Your task to perform on an android device: Open Chrome and go to settings Image 0: 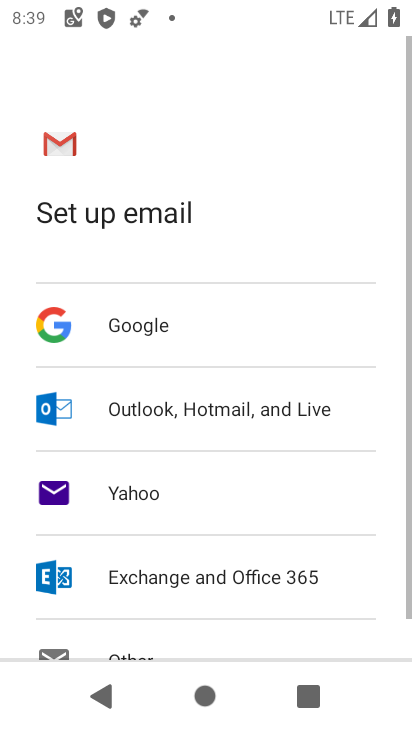
Step 0: press back button
Your task to perform on an android device: Open Chrome and go to settings Image 1: 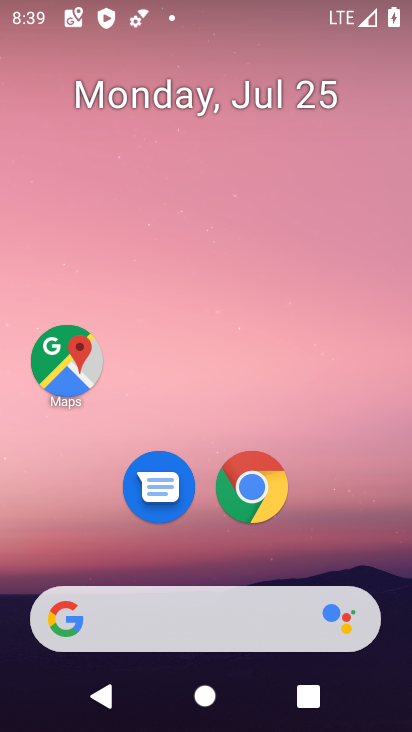
Step 1: click (255, 485)
Your task to perform on an android device: Open Chrome and go to settings Image 2: 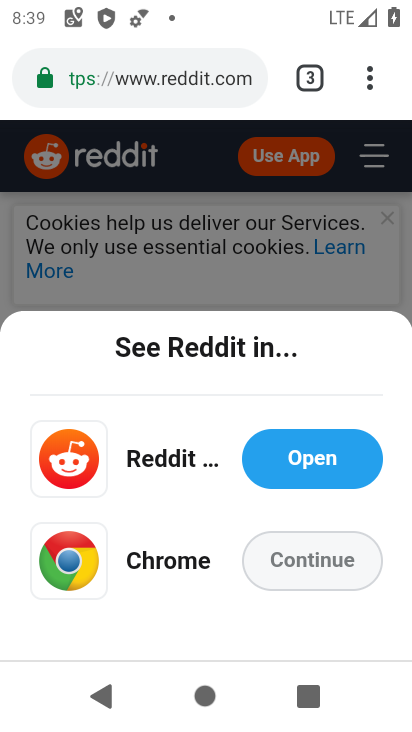
Step 2: task complete